Your task to perform on an android device: turn on translation in the chrome app Image 0: 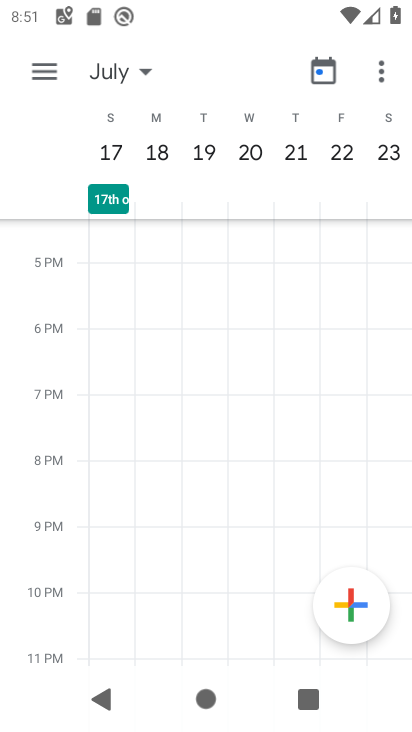
Step 0: press home button
Your task to perform on an android device: turn on translation in the chrome app Image 1: 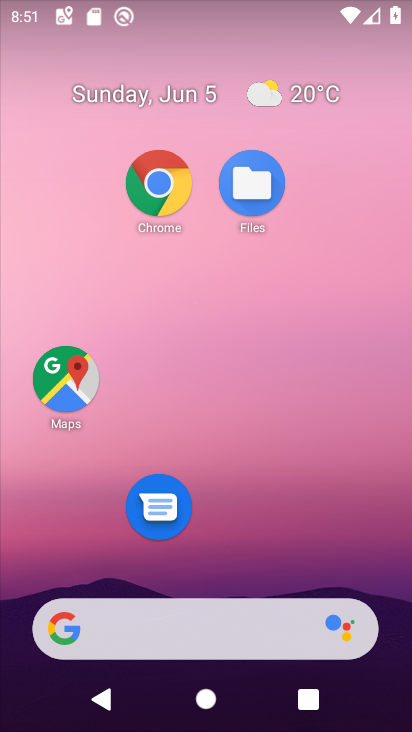
Step 1: drag from (222, 582) to (187, 2)
Your task to perform on an android device: turn on translation in the chrome app Image 2: 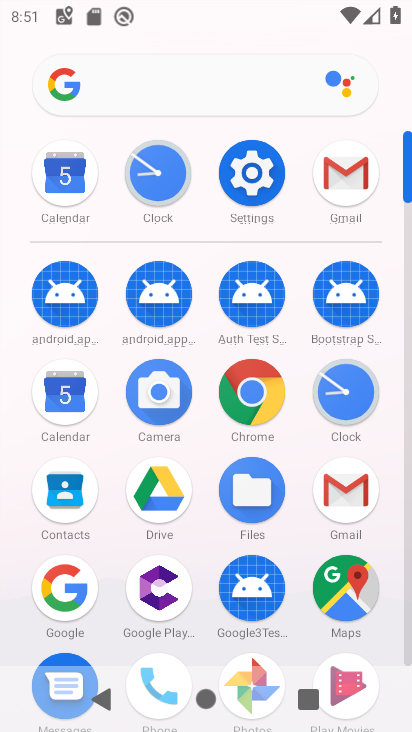
Step 2: click (249, 389)
Your task to perform on an android device: turn on translation in the chrome app Image 3: 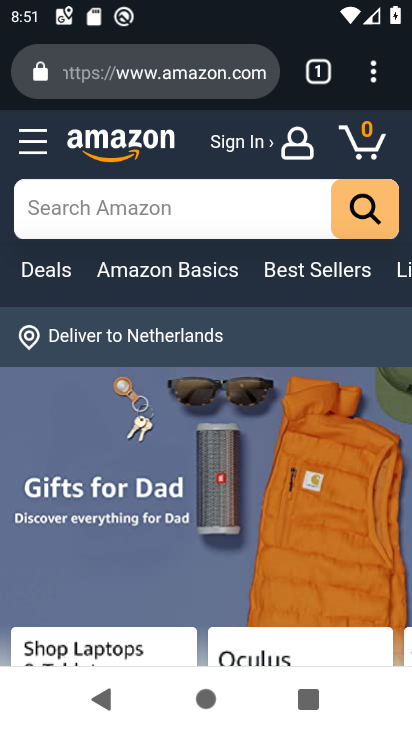
Step 3: click (375, 69)
Your task to perform on an android device: turn on translation in the chrome app Image 4: 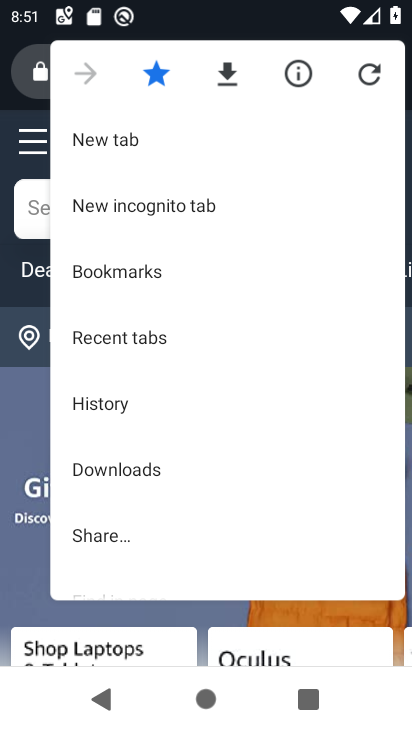
Step 4: drag from (200, 522) to (133, 86)
Your task to perform on an android device: turn on translation in the chrome app Image 5: 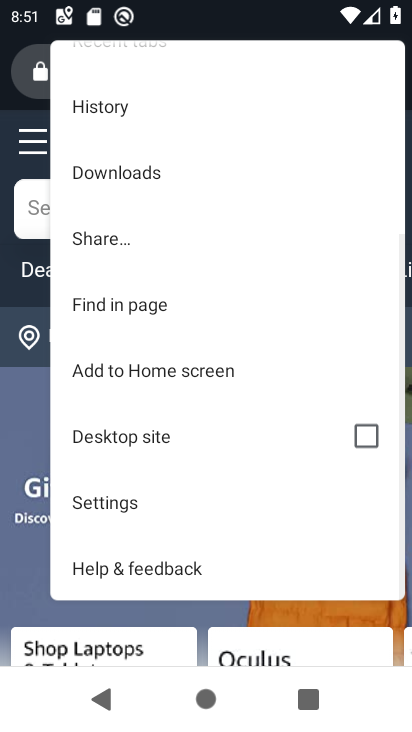
Step 5: click (116, 494)
Your task to perform on an android device: turn on translation in the chrome app Image 6: 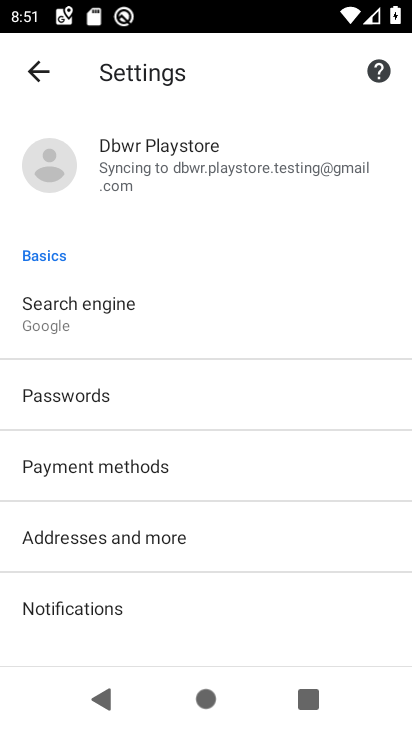
Step 6: drag from (116, 494) to (75, 182)
Your task to perform on an android device: turn on translation in the chrome app Image 7: 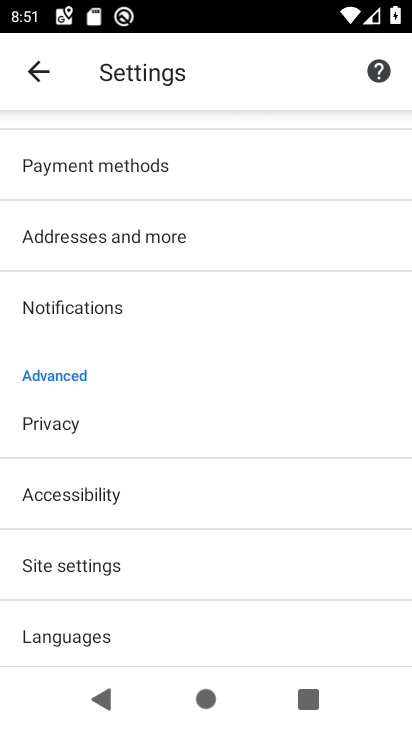
Step 7: click (144, 634)
Your task to perform on an android device: turn on translation in the chrome app Image 8: 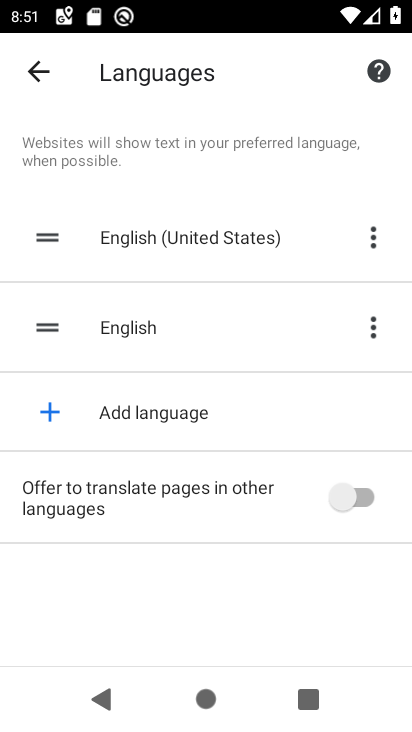
Step 8: click (340, 503)
Your task to perform on an android device: turn on translation in the chrome app Image 9: 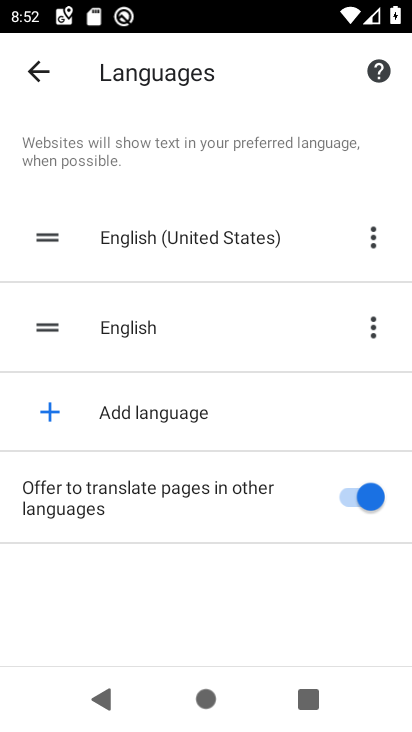
Step 9: task complete